Your task to perform on an android device: turn on the 24-hour format for clock Image 0: 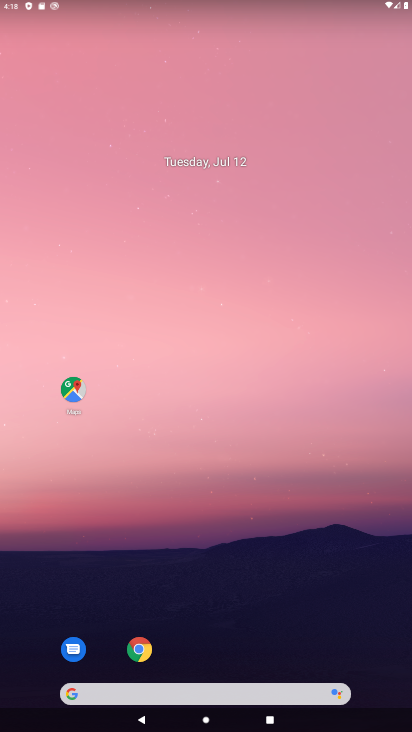
Step 0: drag from (179, 695) to (277, 181)
Your task to perform on an android device: turn on the 24-hour format for clock Image 1: 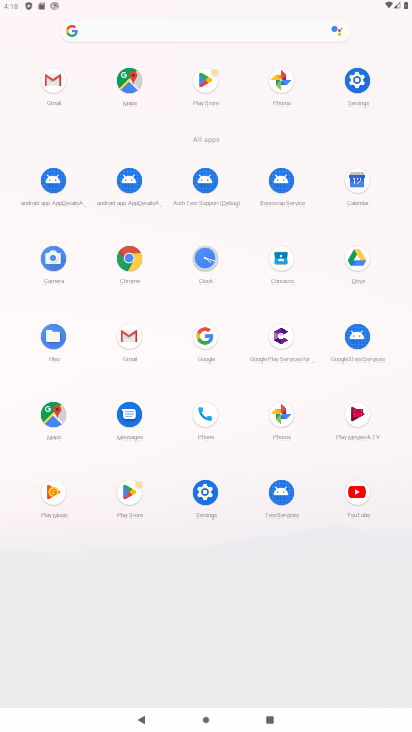
Step 1: click (205, 257)
Your task to perform on an android device: turn on the 24-hour format for clock Image 2: 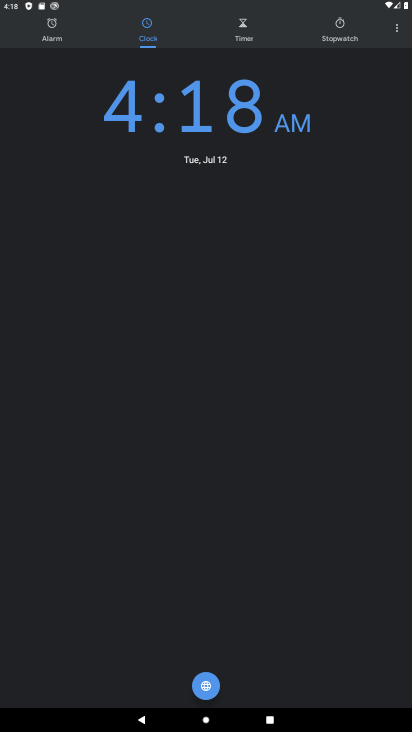
Step 2: click (396, 27)
Your task to perform on an android device: turn on the 24-hour format for clock Image 3: 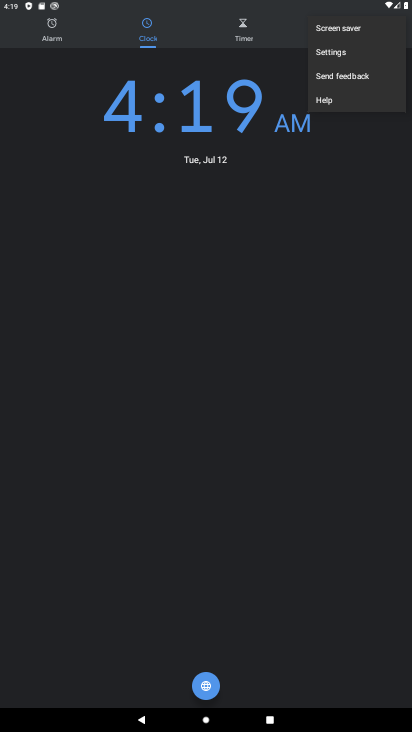
Step 3: click (329, 51)
Your task to perform on an android device: turn on the 24-hour format for clock Image 4: 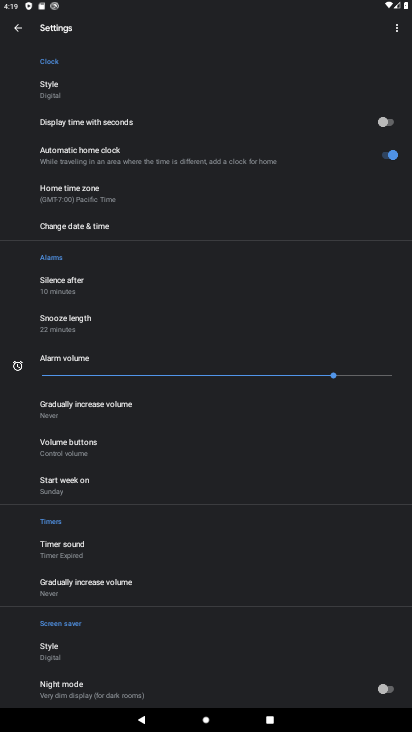
Step 4: click (90, 226)
Your task to perform on an android device: turn on the 24-hour format for clock Image 5: 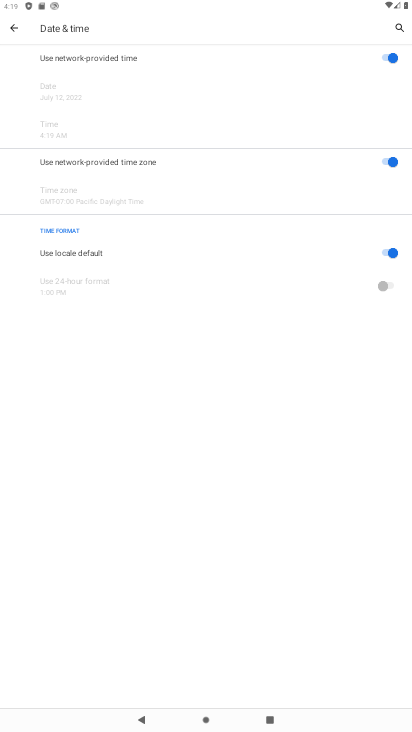
Step 5: click (388, 254)
Your task to perform on an android device: turn on the 24-hour format for clock Image 6: 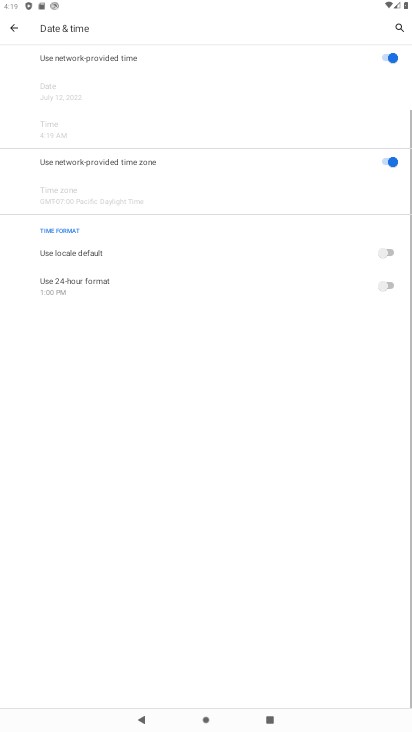
Step 6: click (385, 283)
Your task to perform on an android device: turn on the 24-hour format for clock Image 7: 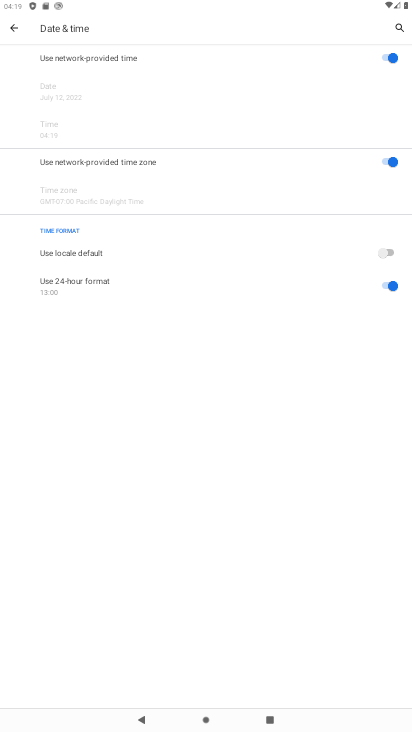
Step 7: task complete